Your task to perform on an android device: toggle priority inbox in the gmail app Image 0: 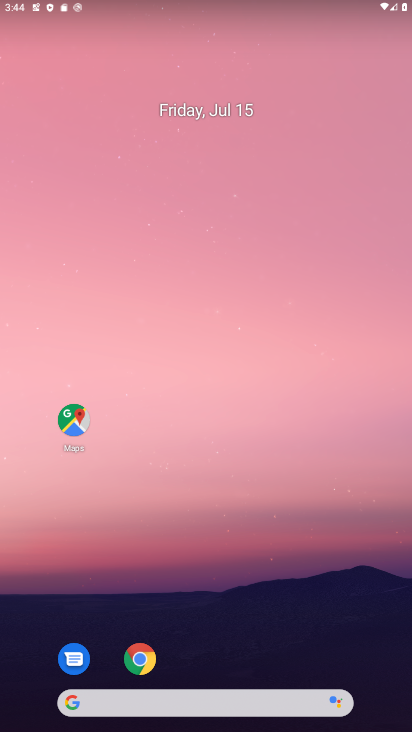
Step 0: drag from (189, 518) to (254, 17)
Your task to perform on an android device: toggle priority inbox in the gmail app Image 1: 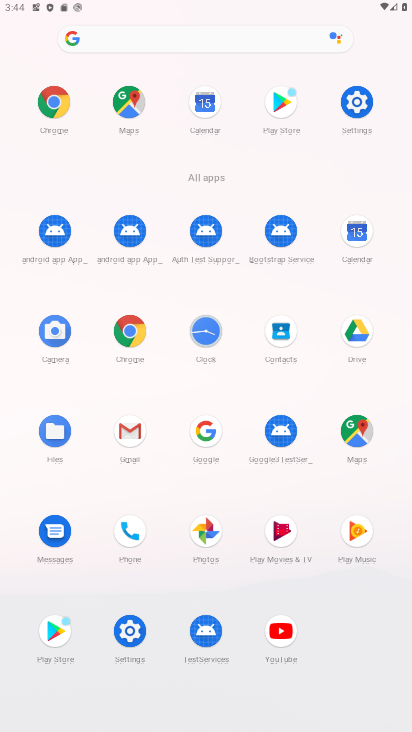
Step 1: click (119, 439)
Your task to perform on an android device: toggle priority inbox in the gmail app Image 2: 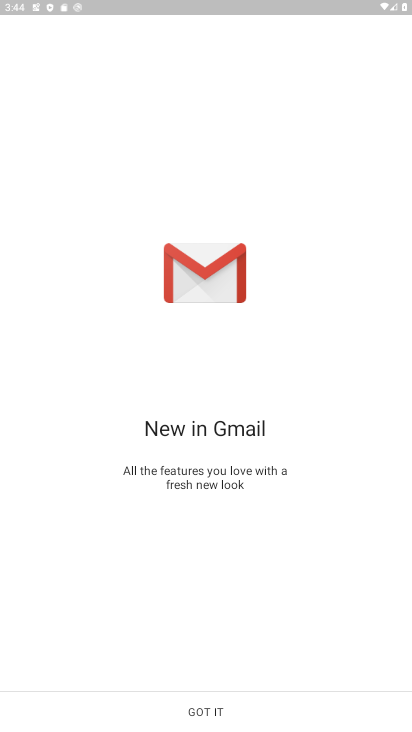
Step 2: click (241, 695)
Your task to perform on an android device: toggle priority inbox in the gmail app Image 3: 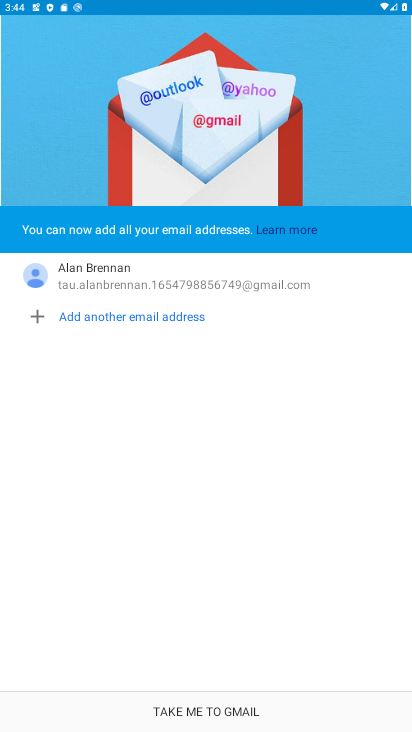
Step 3: click (213, 709)
Your task to perform on an android device: toggle priority inbox in the gmail app Image 4: 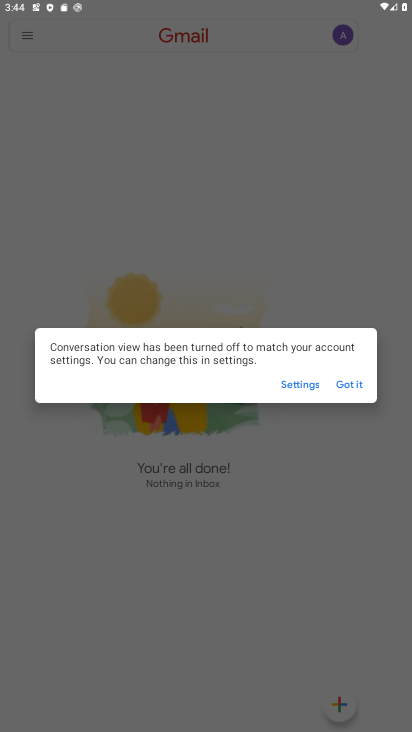
Step 4: click (347, 382)
Your task to perform on an android device: toggle priority inbox in the gmail app Image 5: 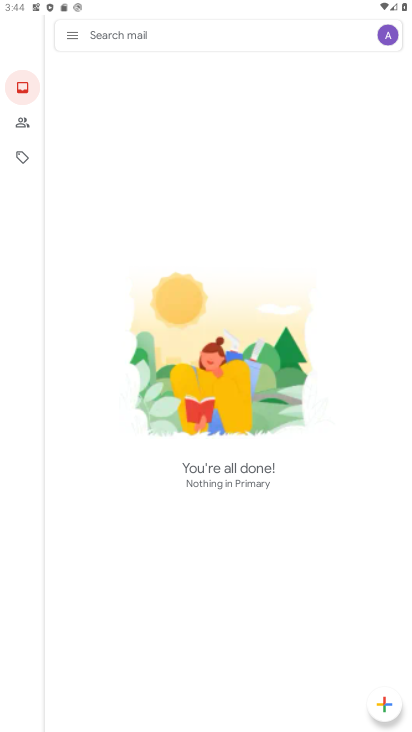
Step 5: click (70, 31)
Your task to perform on an android device: toggle priority inbox in the gmail app Image 6: 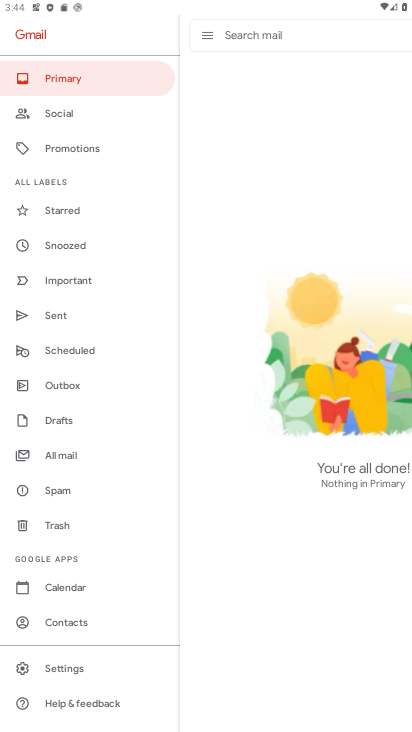
Step 6: click (43, 665)
Your task to perform on an android device: toggle priority inbox in the gmail app Image 7: 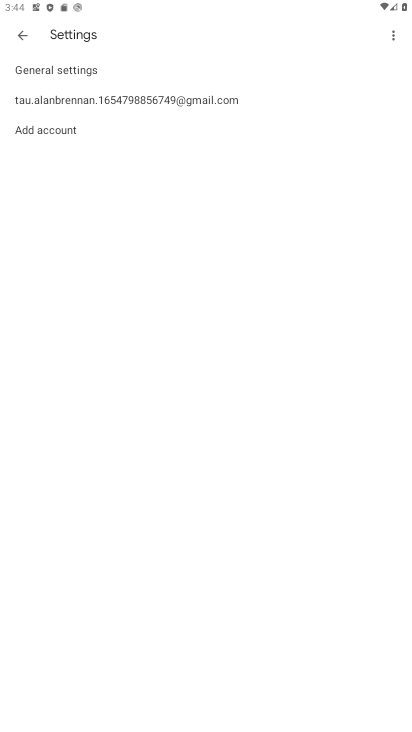
Step 7: click (131, 94)
Your task to perform on an android device: toggle priority inbox in the gmail app Image 8: 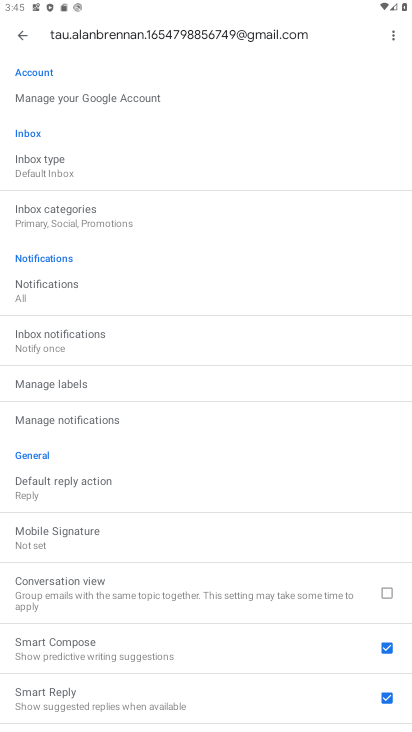
Step 8: press home button
Your task to perform on an android device: toggle priority inbox in the gmail app Image 9: 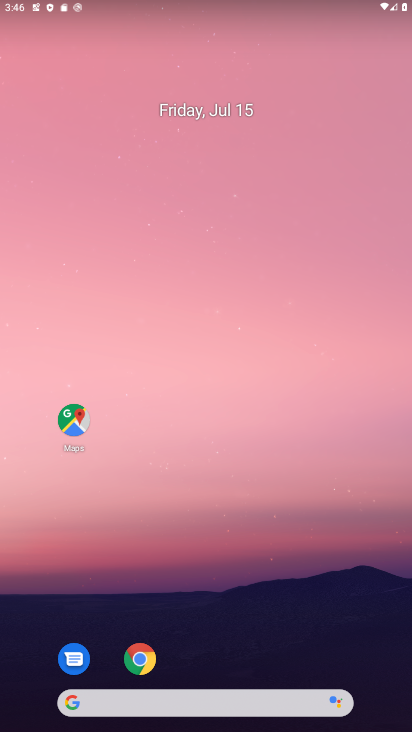
Step 9: drag from (207, 618) to (214, 0)
Your task to perform on an android device: toggle priority inbox in the gmail app Image 10: 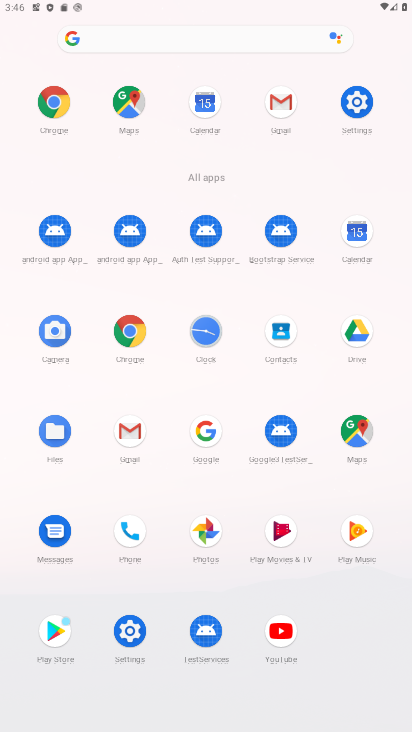
Step 10: click (124, 431)
Your task to perform on an android device: toggle priority inbox in the gmail app Image 11: 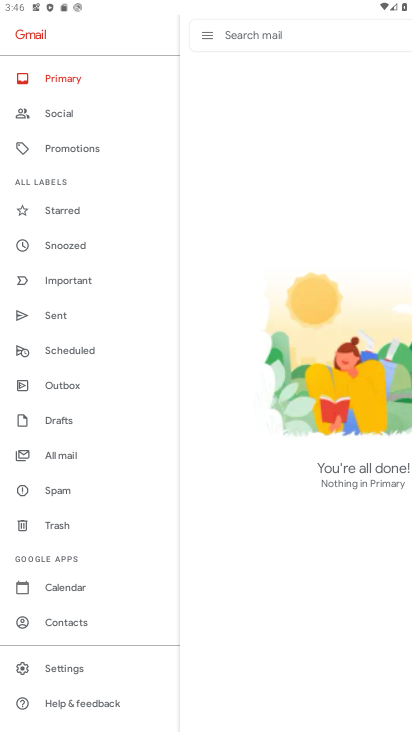
Step 11: click (51, 669)
Your task to perform on an android device: toggle priority inbox in the gmail app Image 12: 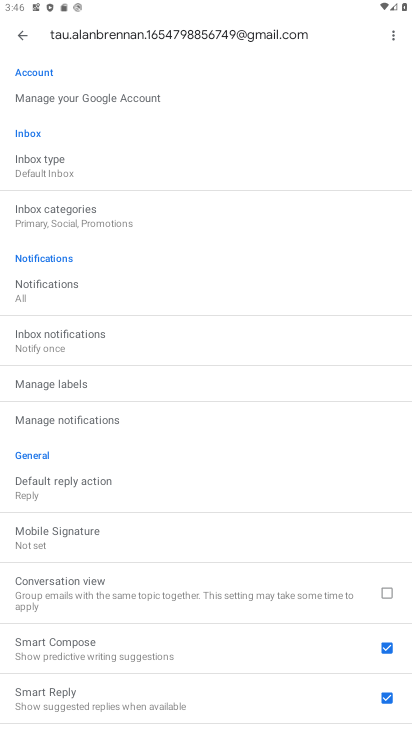
Step 12: click (55, 173)
Your task to perform on an android device: toggle priority inbox in the gmail app Image 13: 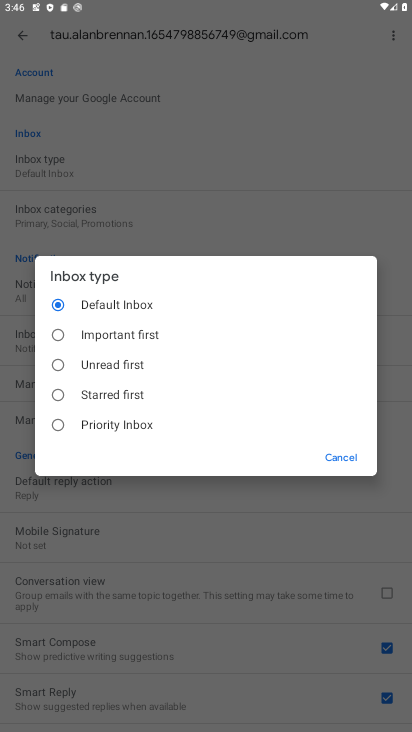
Step 13: click (55, 425)
Your task to perform on an android device: toggle priority inbox in the gmail app Image 14: 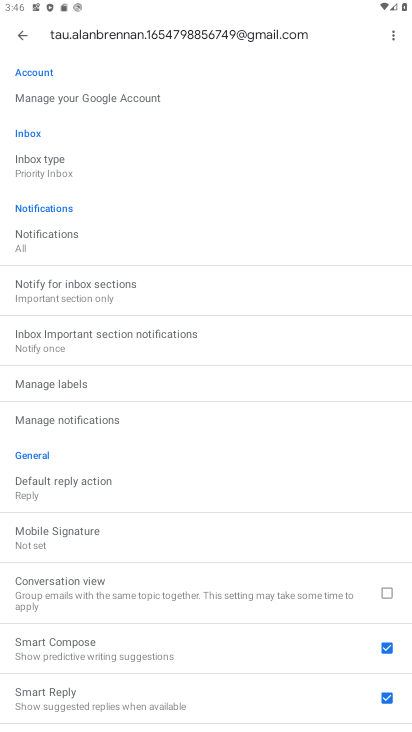
Step 14: task complete